Your task to perform on an android device: What's the weather? Image 0: 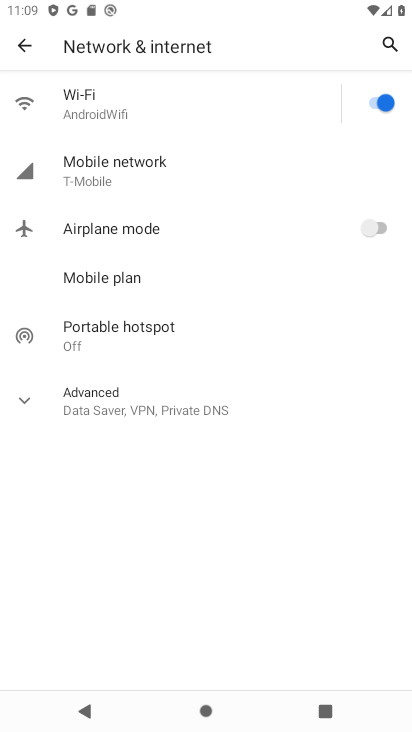
Step 0: press home button
Your task to perform on an android device: What's the weather? Image 1: 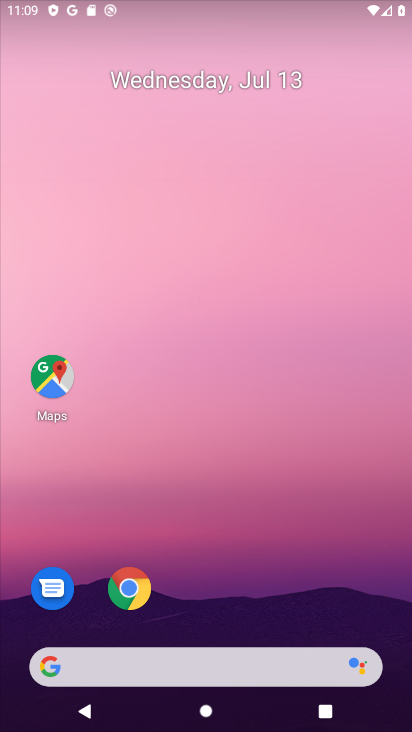
Step 1: drag from (206, 606) to (218, 135)
Your task to perform on an android device: What's the weather? Image 2: 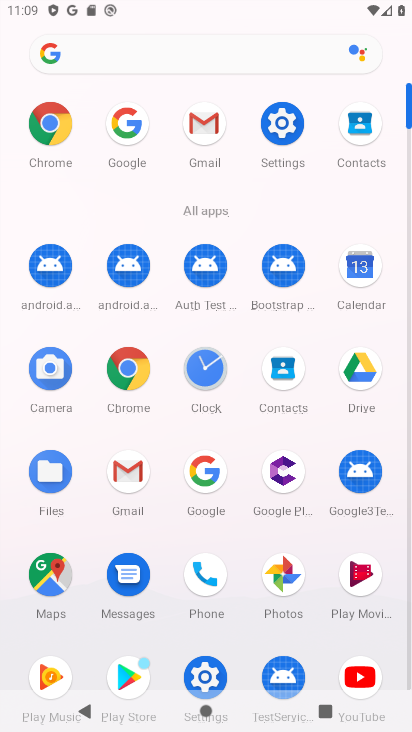
Step 2: click (201, 472)
Your task to perform on an android device: What's the weather? Image 3: 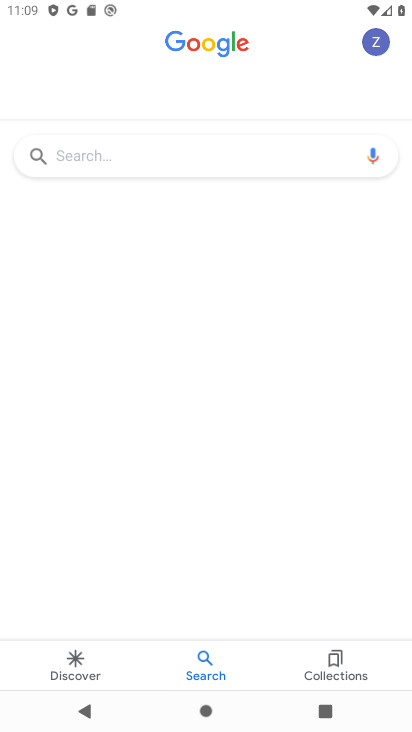
Step 3: click (154, 157)
Your task to perform on an android device: What's the weather? Image 4: 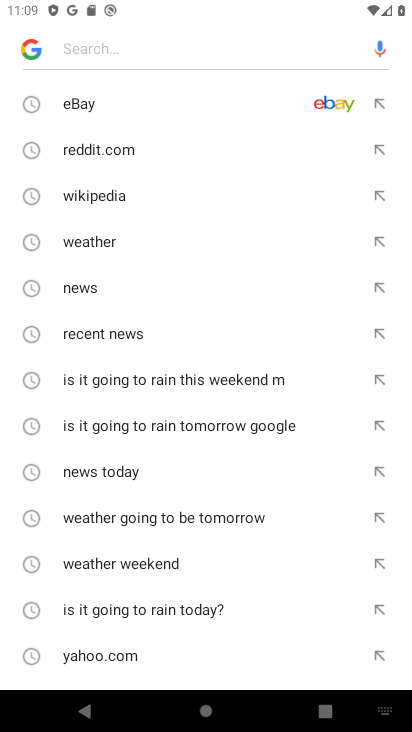
Step 4: click (101, 243)
Your task to perform on an android device: What's the weather? Image 5: 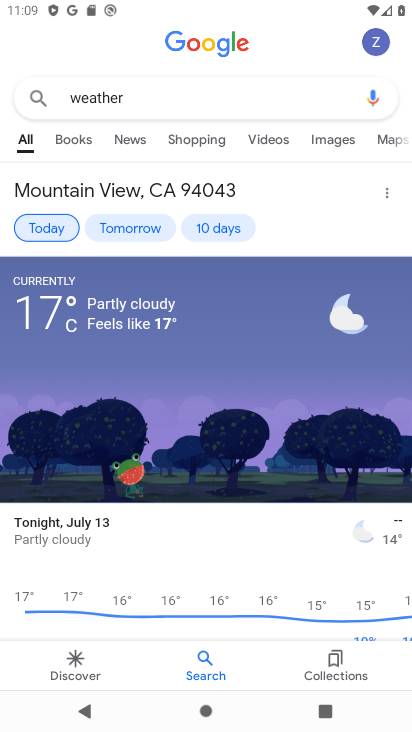
Step 5: task complete